Your task to perform on an android device: show emergency info Image 0: 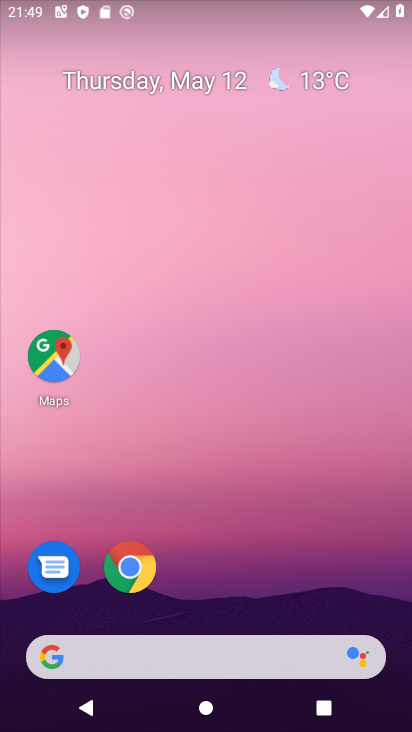
Step 0: drag from (217, 615) to (213, 66)
Your task to perform on an android device: show emergency info Image 1: 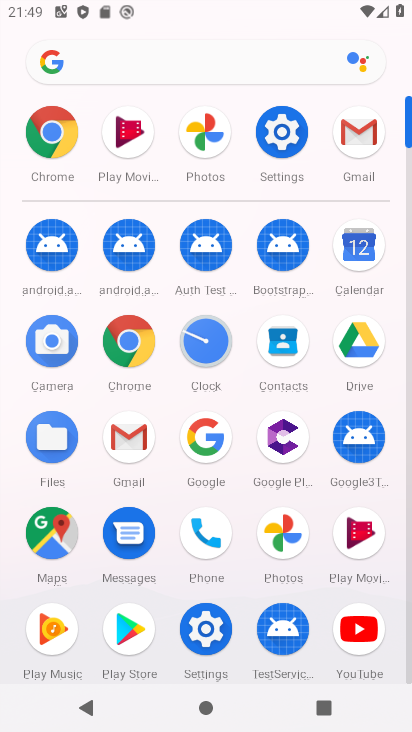
Step 1: click (279, 123)
Your task to perform on an android device: show emergency info Image 2: 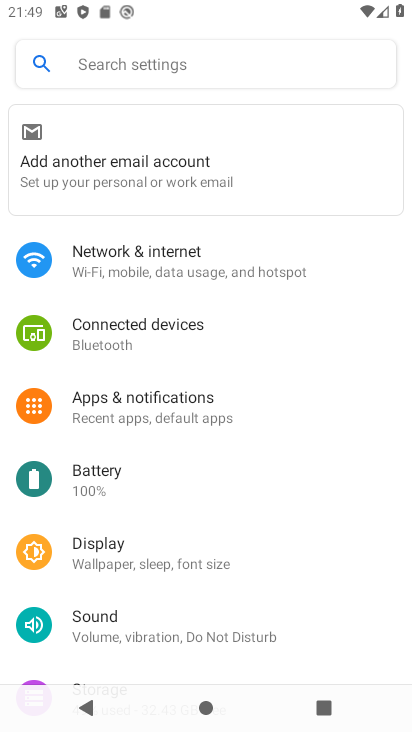
Step 2: drag from (203, 614) to (215, 58)
Your task to perform on an android device: show emergency info Image 3: 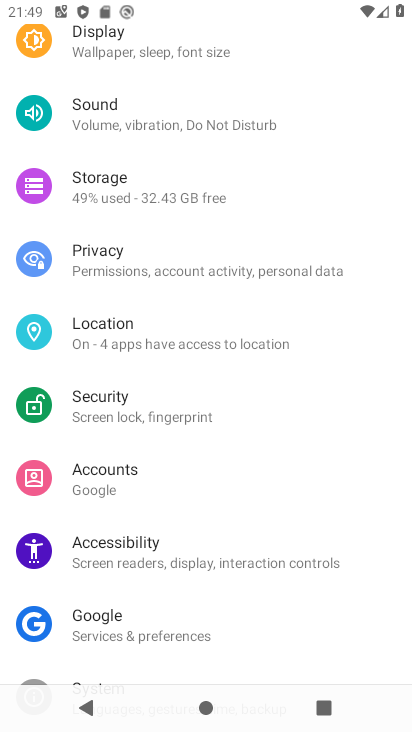
Step 3: drag from (197, 652) to (191, 58)
Your task to perform on an android device: show emergency info Image 4: 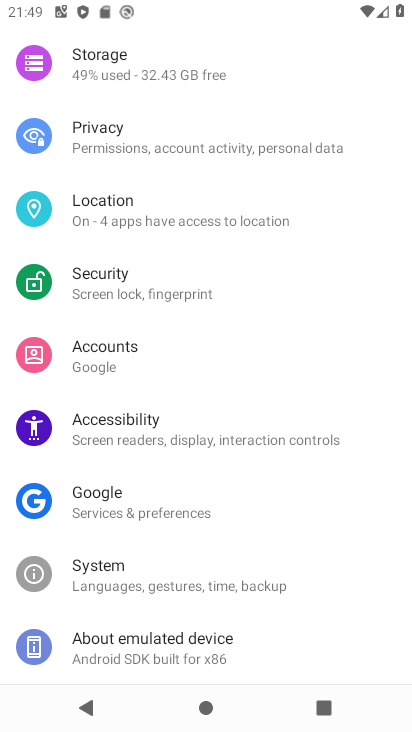
Step 4: click (237, 652)
Your task to perform on an android device: show emergency info Image 5: 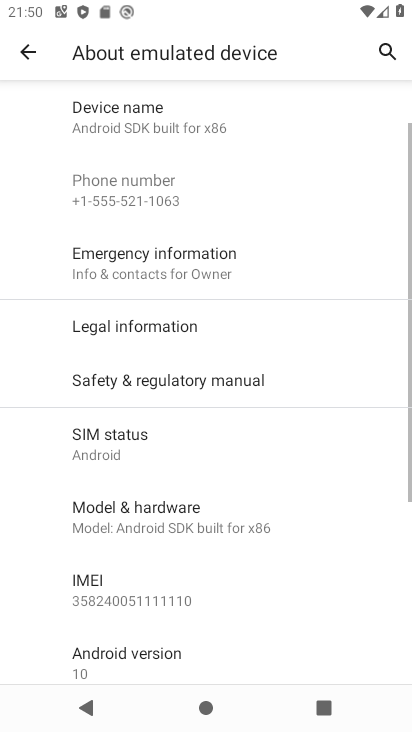
Step 5: click (55, 262)
Your task to perform on an android device: show emergency info Image 6: 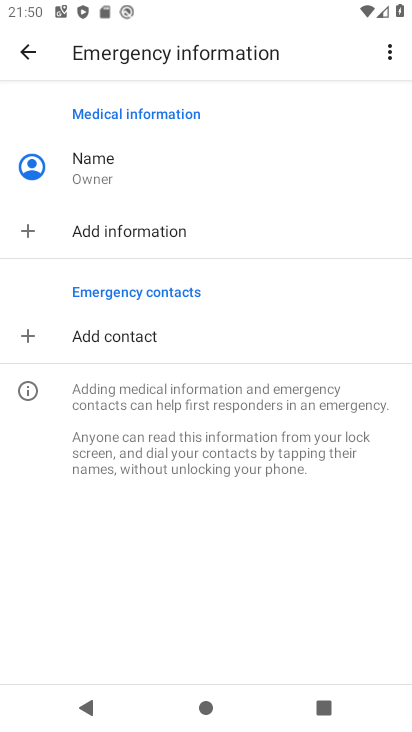
Step 6: task complete